Your task to perform on an android device: Search for seafood restaurants on Google Maps Image 0: 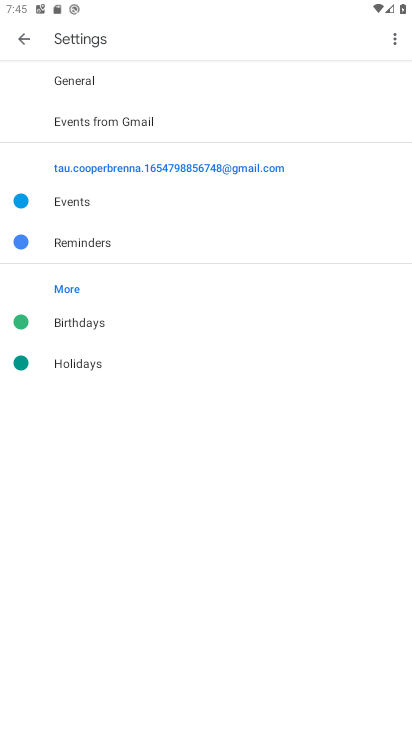
Step 0: press home button
Your task to perform on an android device: Search for seafood restaurants on Google Maps Image 1: 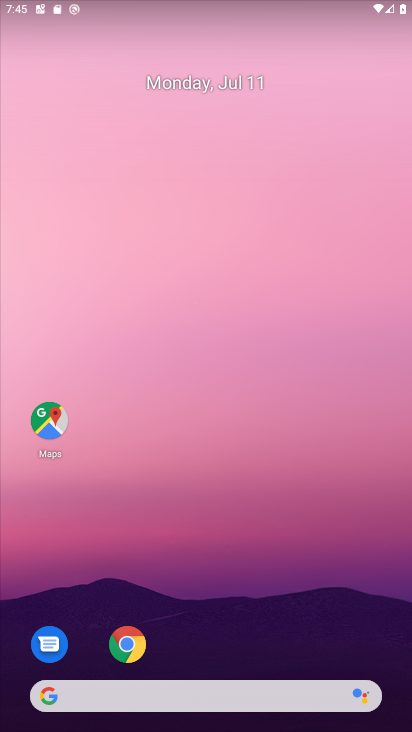
Step 1: drag from (203, 679) to (265, 227)
Your task to perform on an android device: Search for seafood restaurants on Google Maps Image 2: 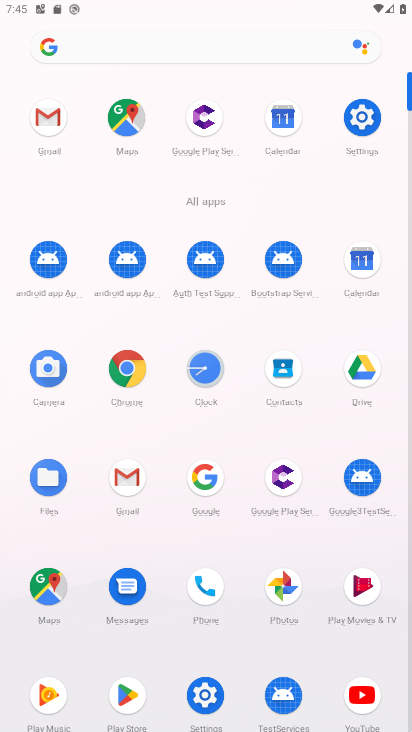
Step 2: click (123, 115)
Your task to perform on an android device: Search for seafood restaurants on Google Maps Image 3: 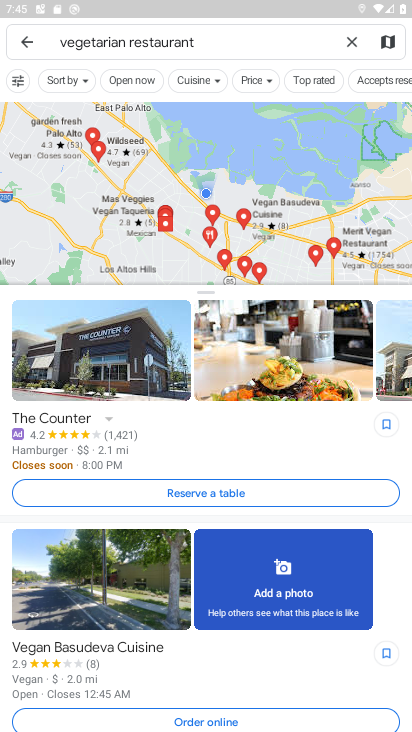
Step 3: click (351, 41)
Your task to perform on an android device: Search for seafood restaurants on Google Maps Image 4: 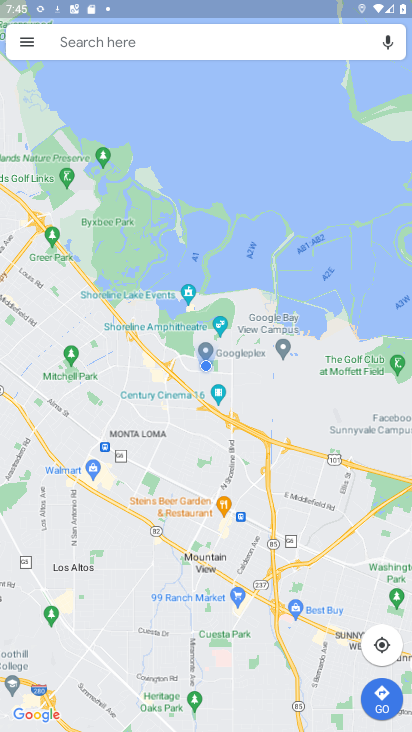
Step 4: click (237, 40)
Your task to perform on an android device: Search for seafood restaurants on Google Maps Image 5: 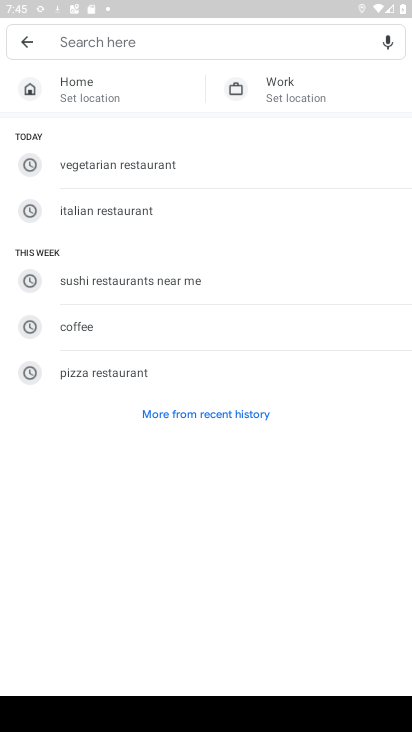
Step 5: type " seafood restaurants "
Your task to perform on an android device: Search for seafood restaurants on Google Maps Image 6: 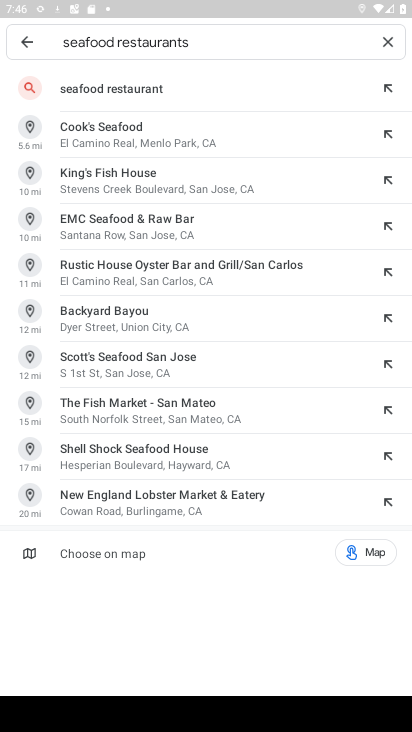
Step 6: click (134, 84)
Your task to perform on an android device: Search for seafood restaurants on Google Maps Image 7: 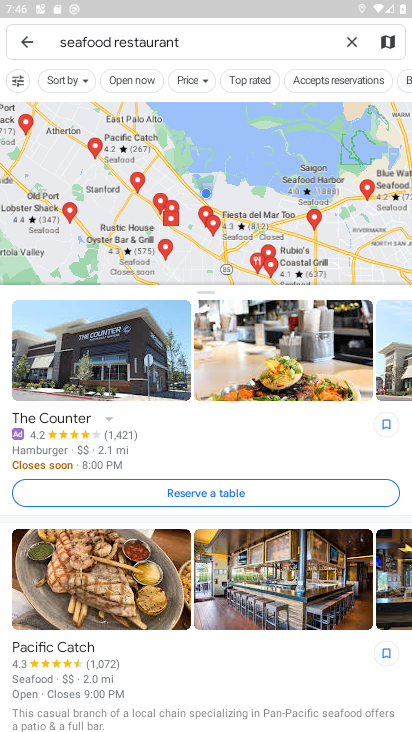
Step 7: task complete